Your task to perform on an android device: Show me popular videos on Youtube Image 0: 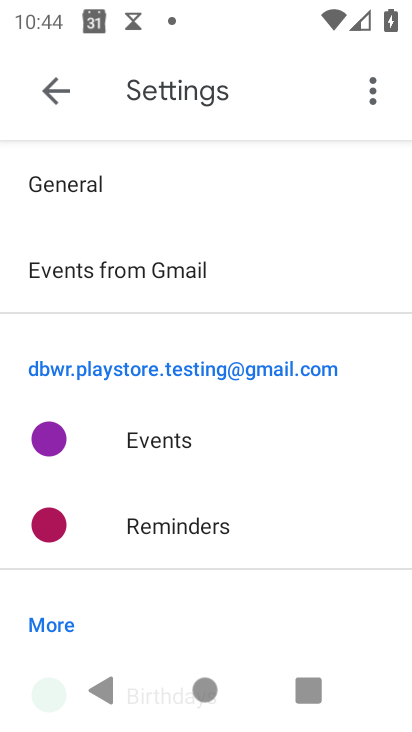
Step 0: press home button
Your task to perform on an android device: Show me popular videos on Youtube Image 1: 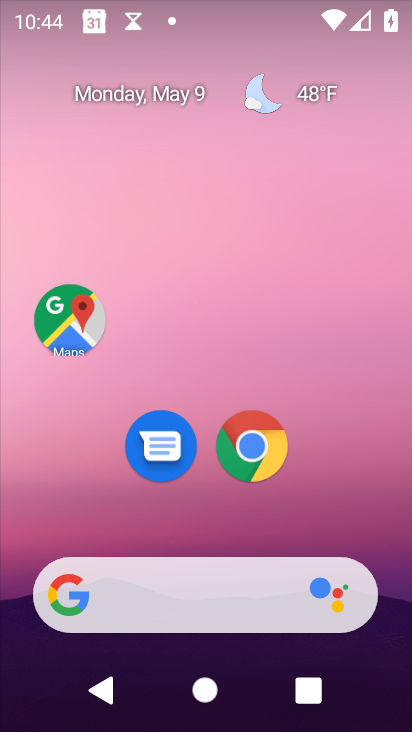
Step 1: drag from (342, 524) to (334, 107)
Your task to perform on an android device: Show me popular videos on Youtube Image 2: 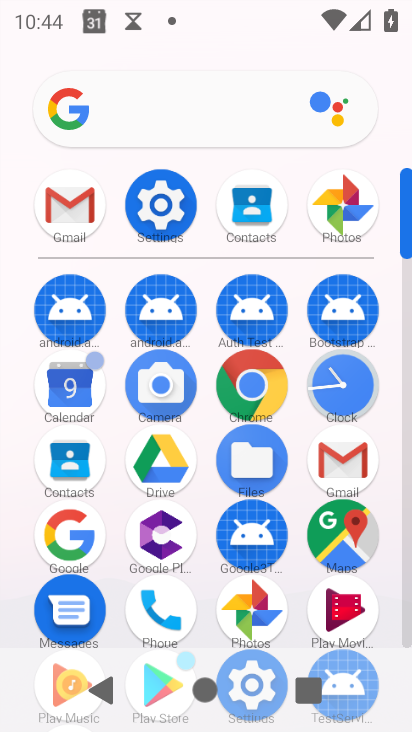
Step 2: drag from (209, 563) to (218, 200)
Your task to perform on an android device: Show me popular videos on Youtube Image 3: 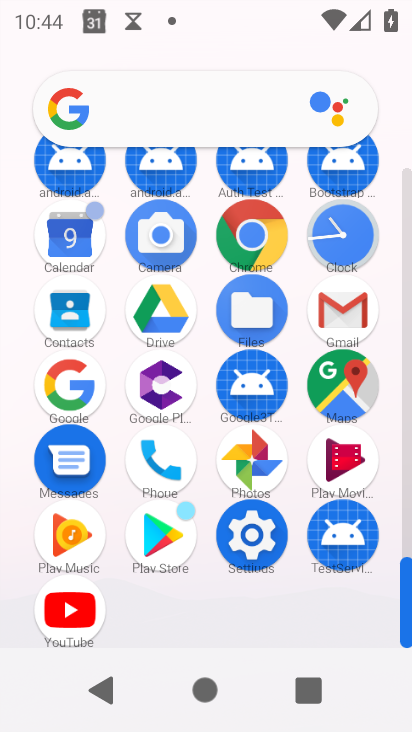
Step 3: click (73, 597)
Your task to perform on an android device: Show me popular videos on Youtube Image 4: 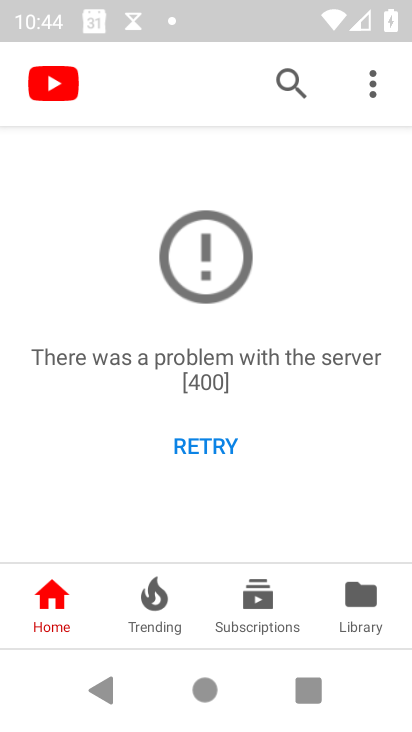
Step 4: click (293, 83)
Your task to perform on an android device: Show me popular videos on Youtube Image 5: 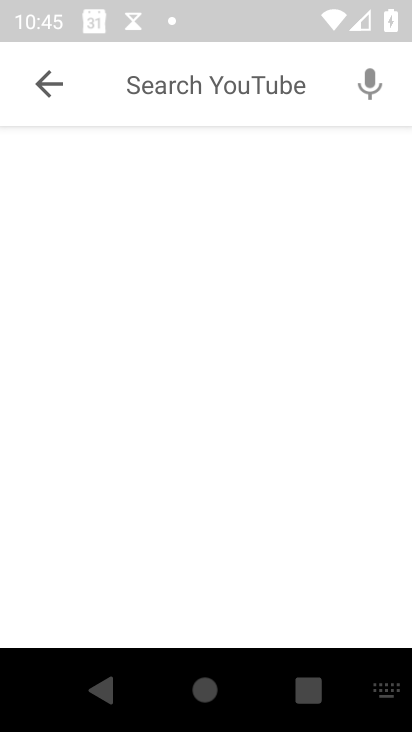
Step 5: type "popular videos "
Your task to perform on an android device: Show me popular videos on Youtube Image 6: 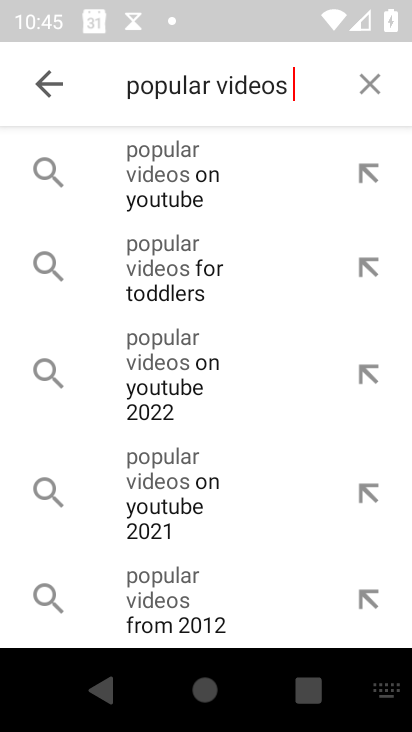
Step 6: click (222, 202)
Your task to perform on an android device: Show me popular videos on Youtube Image 7: 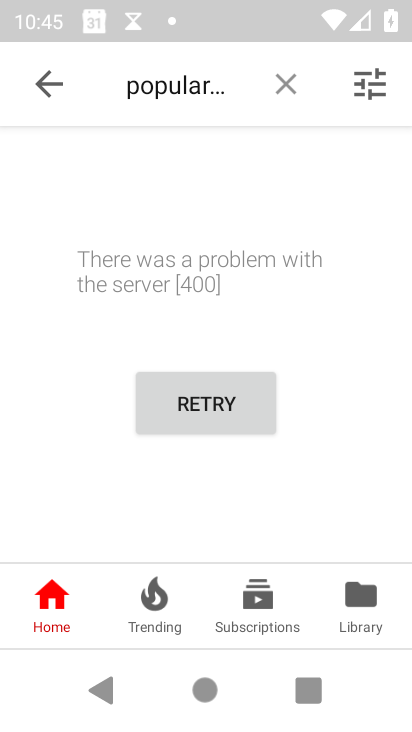
Step 7: click (257, 400)
Your task to perform on an android device: Show me popular videos on Youtube Image 8: 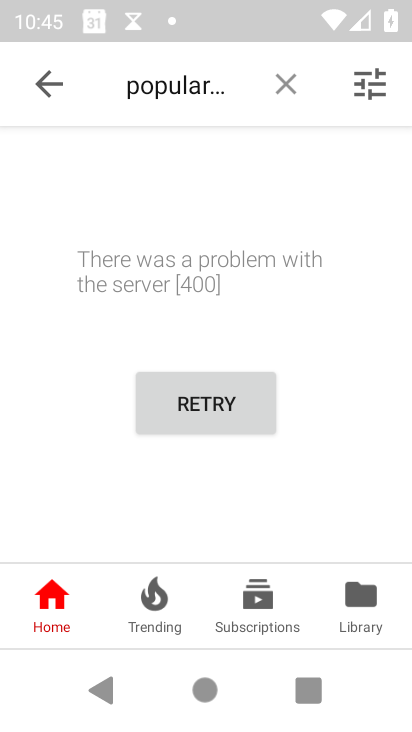
Step 8: click (252, 399)
Your task to perform on an android device: Show me popular videos on Youtube Image 9: 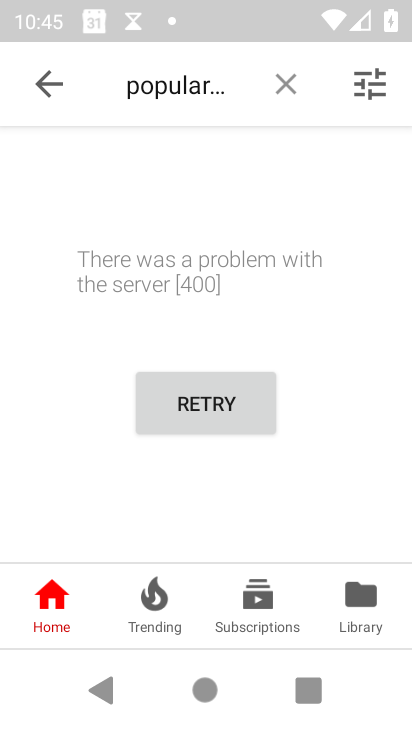
Step 9: task complete